Your task to perform on an android device: What's the weather going to be tomorrow? Image 0: 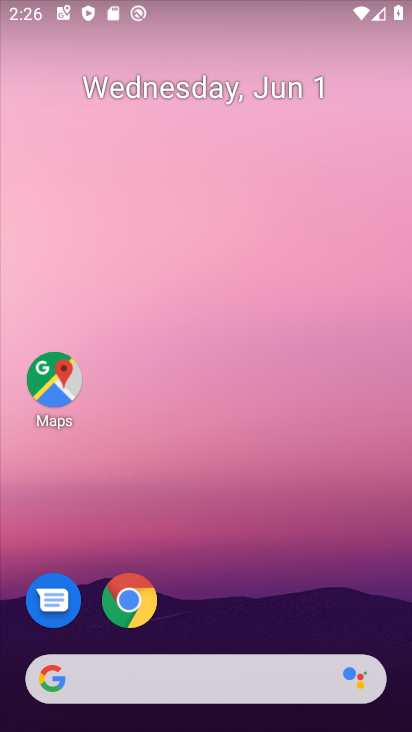
Step 0: drag from (240, 601) to (172, 20)
Your task to perform on an android device: What's the weather going to be tomorrow? Image 1: 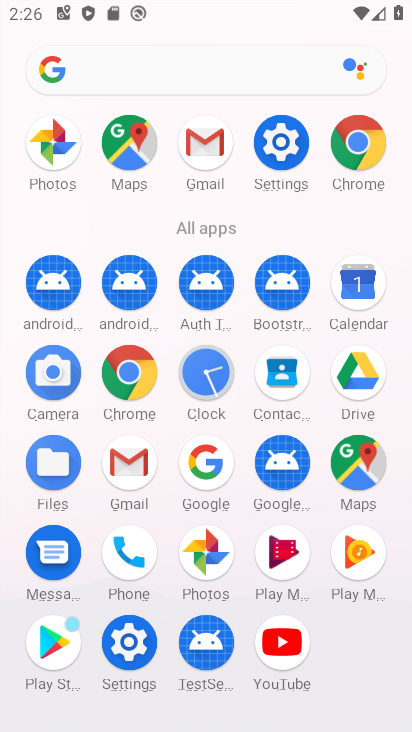
Step 1: drag from (2, 531) to (1, 192)
Your task to perform on an android device: What's the weather going to be tomorrow? Image 2: 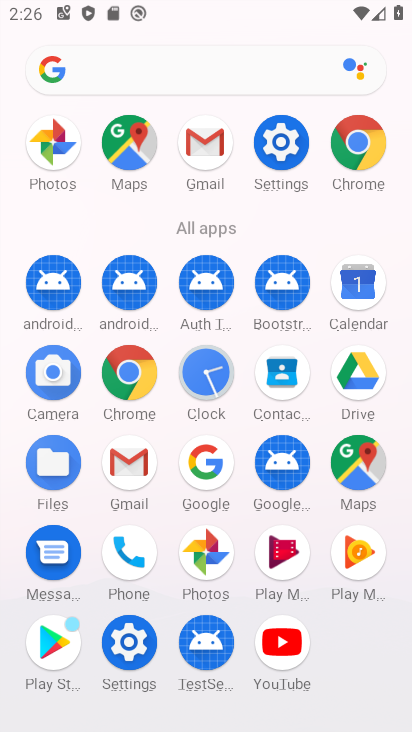
Step 2: drag from (15, 572) to (3, 246)
Your task to perform on an android device: What's the weather going to be tomorrow? Image 3: 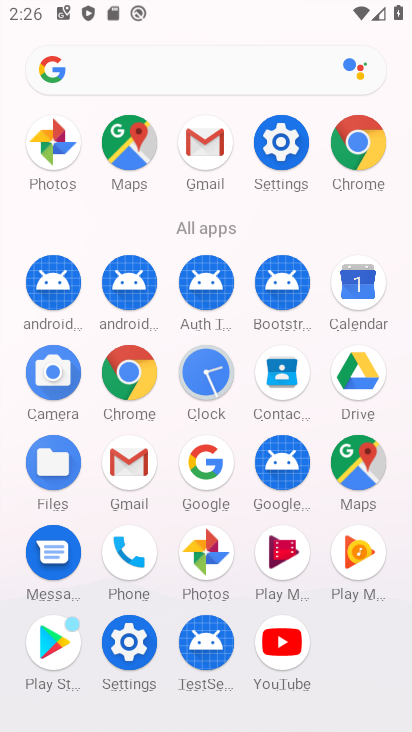
Step 3: drag from (7, 138) to (16, 390)
Your task to perform on an android device: What's the weather going to be tomorrow? Image 4: 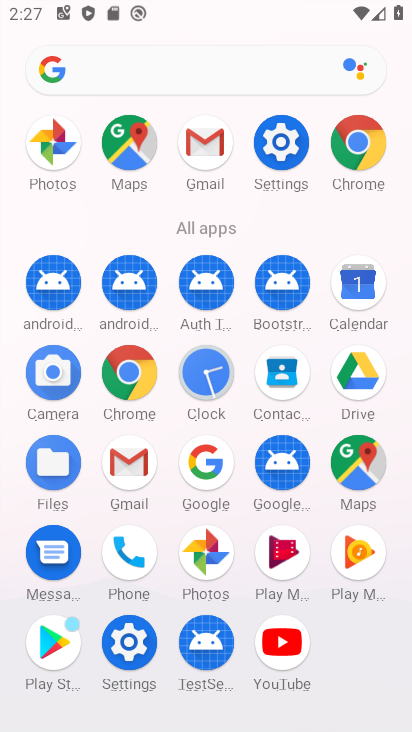
Step 4: drag from (6, 583) to (6, 266)
Your task to perform on an android device: What's the weather going to be tomorrow? Image 5: 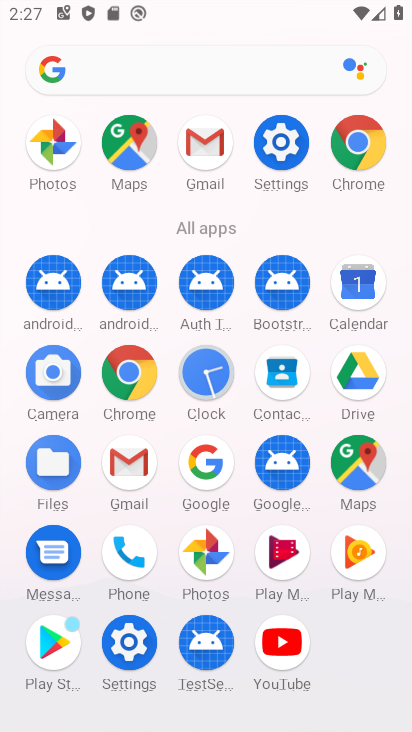
Step 5: click (125, 372)
Your task to perform on an android device: What's the weather going to be tomorrow? Image 6: 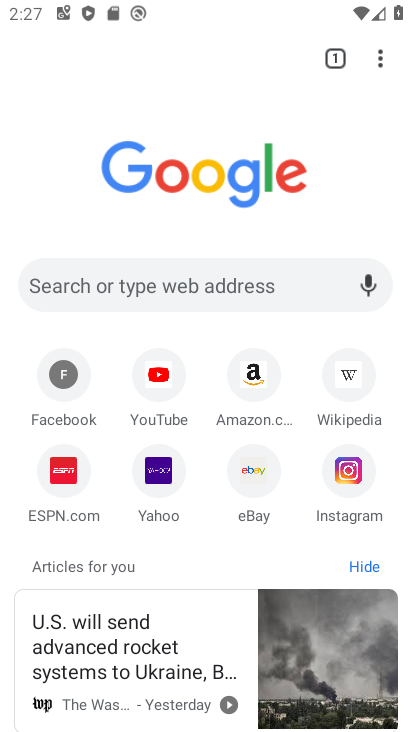
Step 6: click (172, 283)
Your task to perform on an android device: What's the weather going to be tomorrow? Image 7: 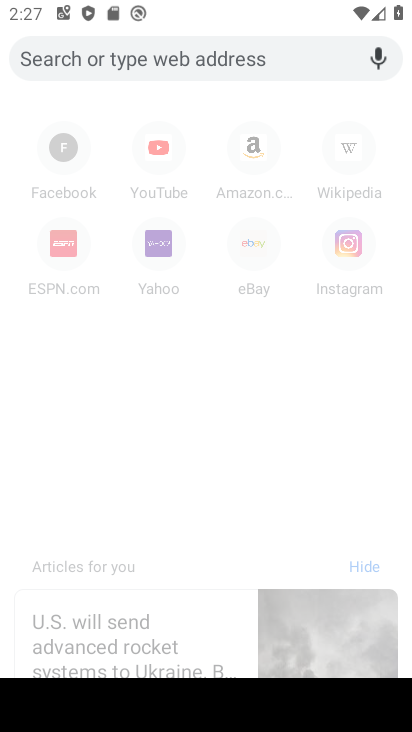
Step 7: type "What's the weather going to be tomorrow?"
Your task to perform on an android device: What's the weather going to be tomorrow? Image 8: 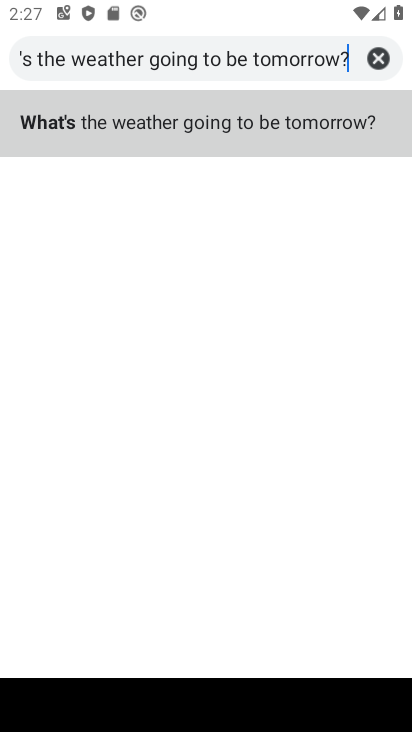
Step 8: type ""
Your task to perform on an android device: What's the weather going to be tomorrow? Image 9: 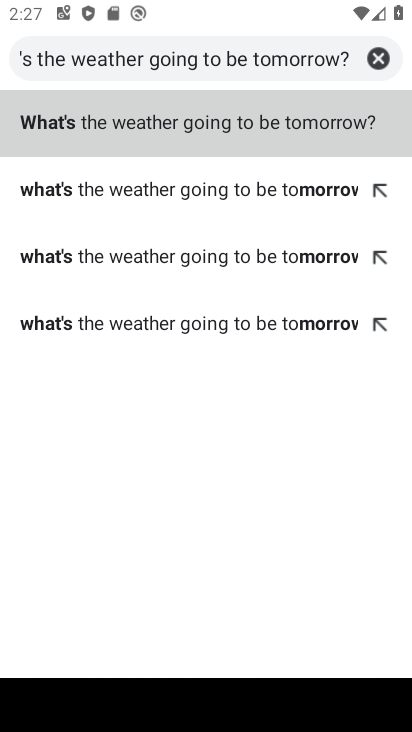
Step 9: click (184, 116)
Your task to perform on an android device: What's the weather going to be tomorrow? Image 10: 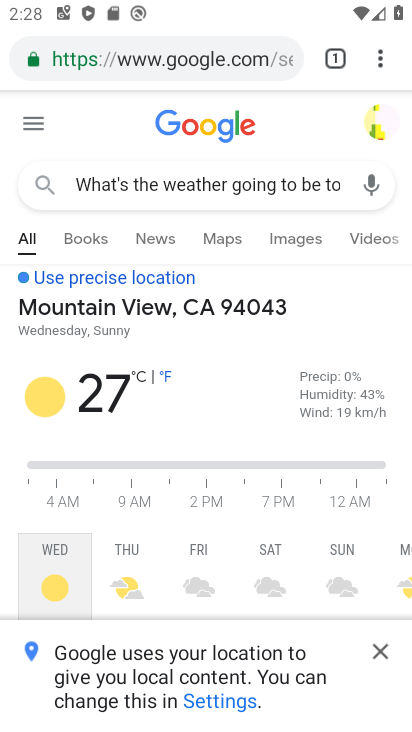
Step 10: task complete